Your task to perform on an android device: Open the web browser Image 0: 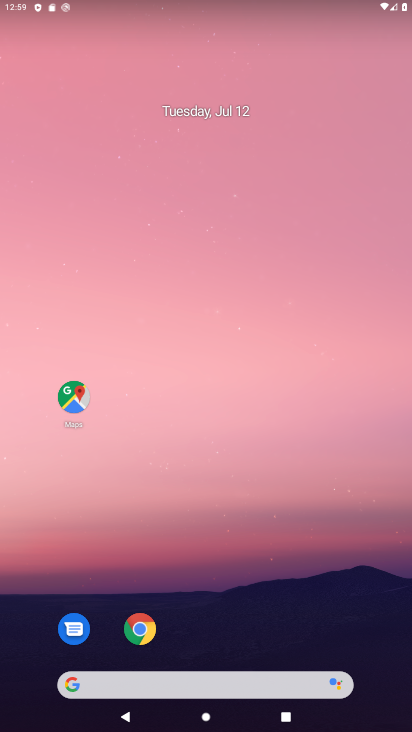
Step 0: press home button
Your task to perform on an android device: Open the web browser Image 1: 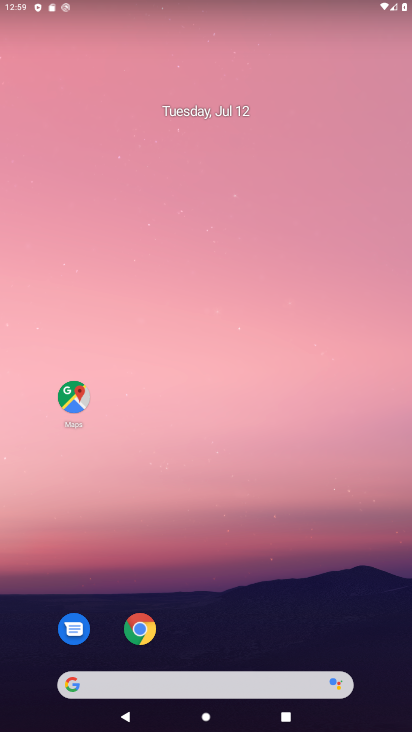
Step 1: click (142, 629)
Your task to perform on an android device: Open the web browser Image 2: 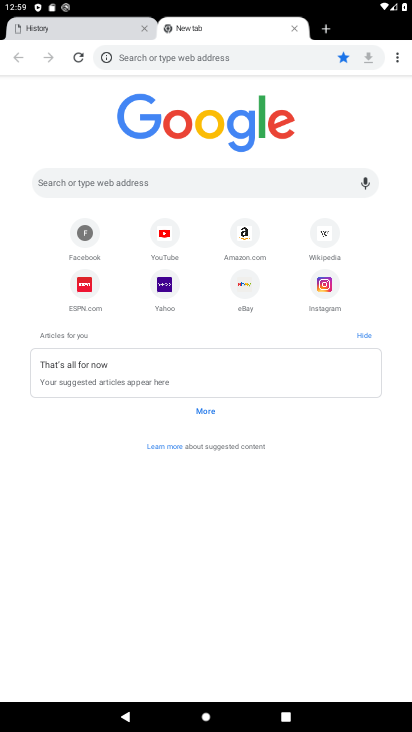
Step 2: task complete